Your task to perform on an android device: Go to Yahoo.com Image 0: 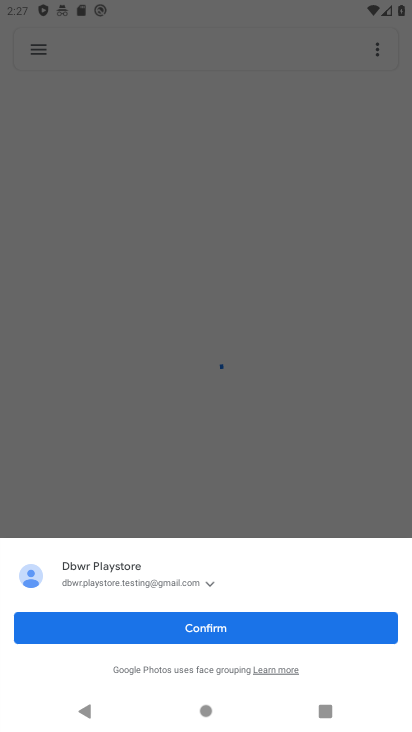
Step 0: press back button
Your task to perform on an android device: Go to Yahoo.com Image 1: 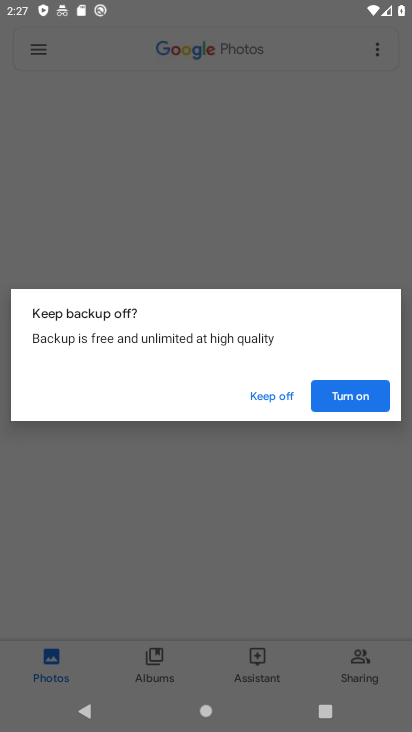
Step 1: click (218, 625)
Your task to perform on an android device: Go to Yahoo.com Image 2: 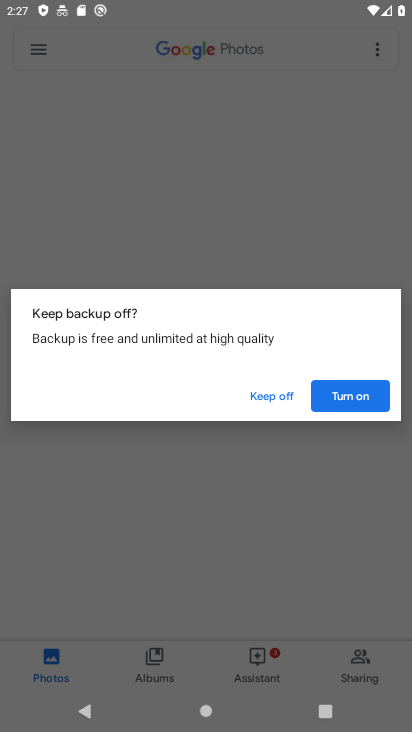
Step 2: click (290, 396)
Your task to perform on an android device: Go to Yahoo.com Image 3: 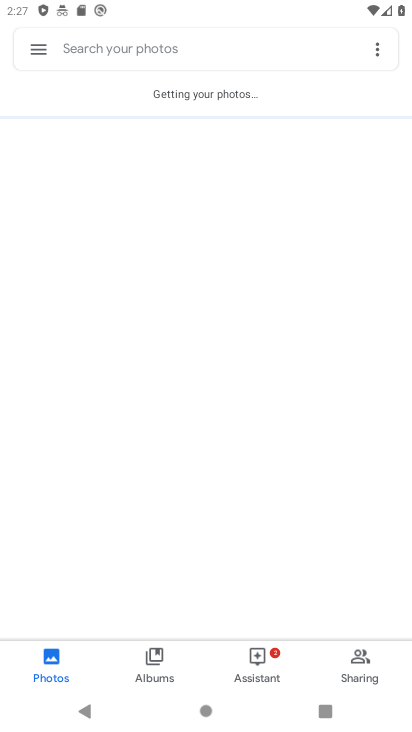
Step 3: press home button
Your task to perform on an android device: Go to Yahoo.com Image 4: 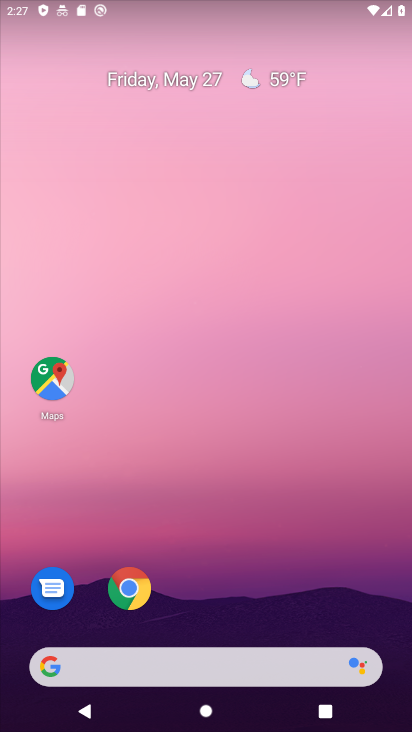
Step 4: drag from (238, 651) to (68, 13)
Your task to perform on an android device: Go to Yahoo.com Image 5: 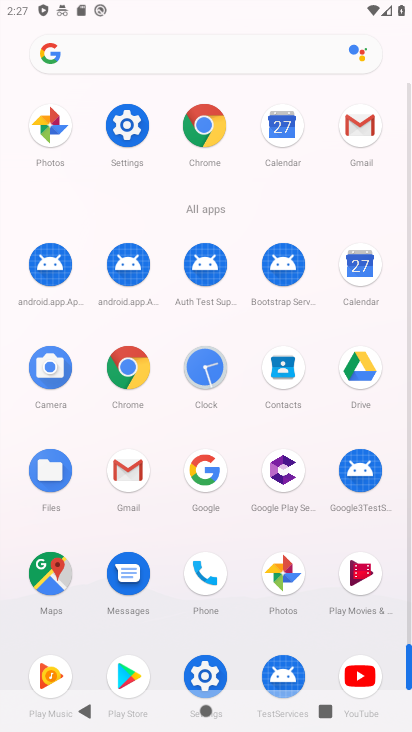
Step 5: click (200, 125)
Your task to perform on an android device: Go to Yahoo.com Image 6: 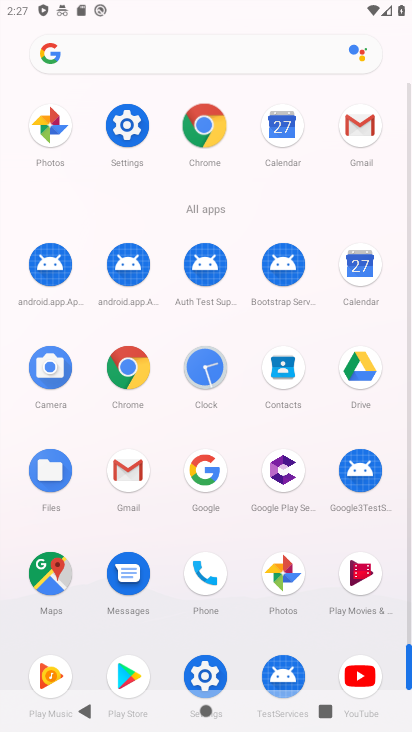
Step 6: click (200, 125)
Your task to perform on an android device: Go to Yahoo.com Image 7: 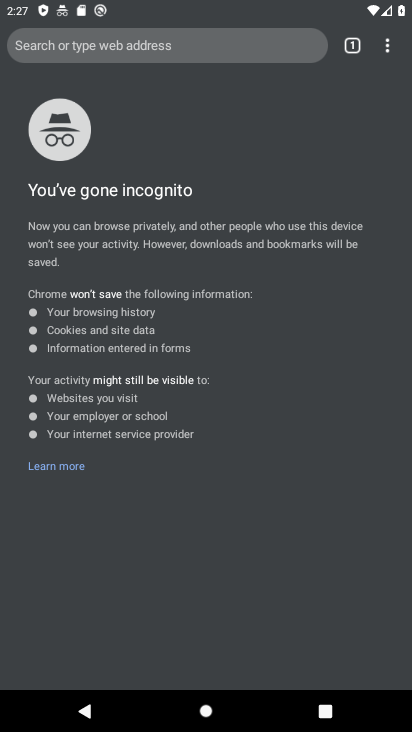
Step 7: click (201, 124)
Your task to perform on an android device: Go to Yahoo.com Image 8: 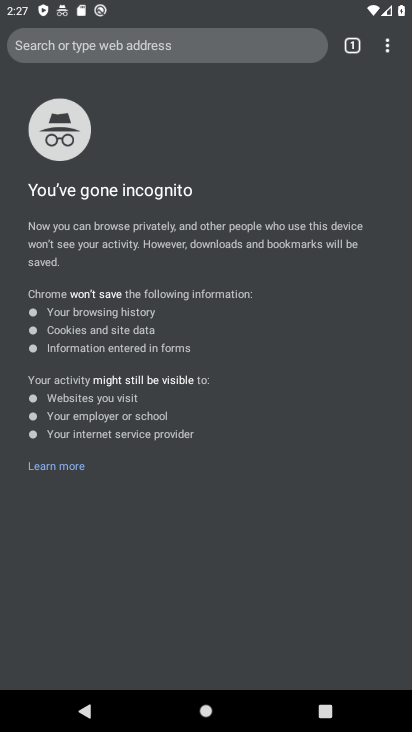
Step 8: click (201, 124)
Your task to perform on an android device: Go to Yahoo.com Image 9: 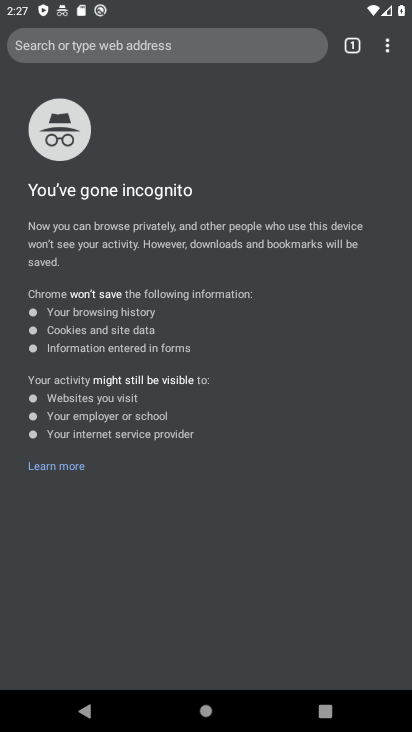
Step 9: drag from (386, 48) to (222, 337)
Your task to perform on an android device: Go to Yahoo.com Image 10: 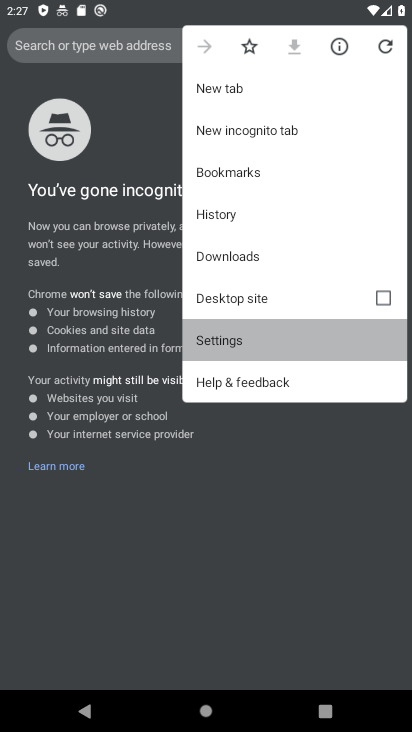
Step 10: click (222, 337)
Your task to perform on an android device: Go to Yahoo.com Image 11: 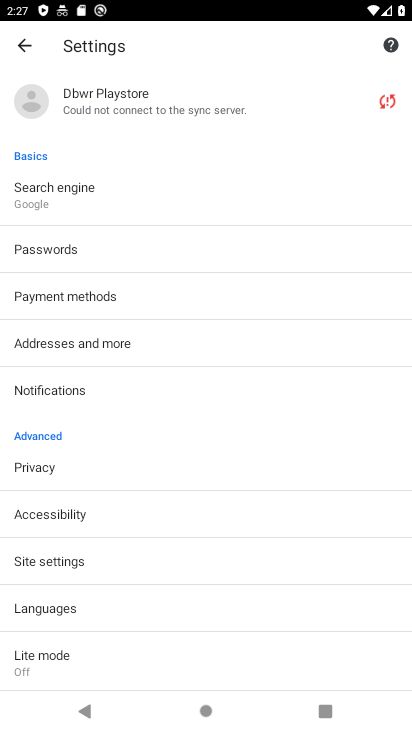
Step 11: click (25, 50)
Your task to perform on an android device: Go to Yahoo.com Image 12: 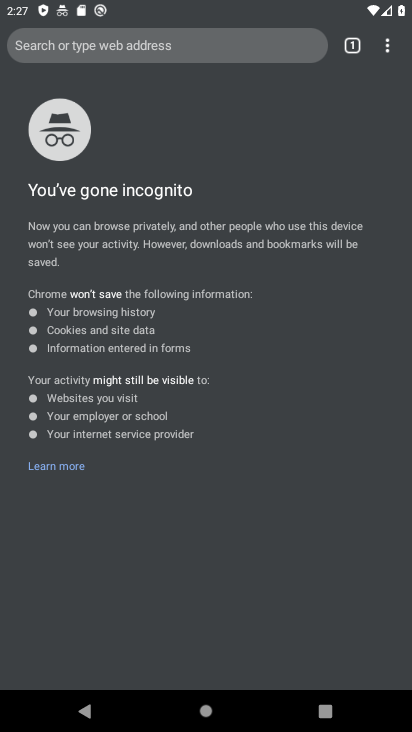
Step 12: click (390, 50)
Your task to perform on an android device: Go to Yahoo.com Image 13: 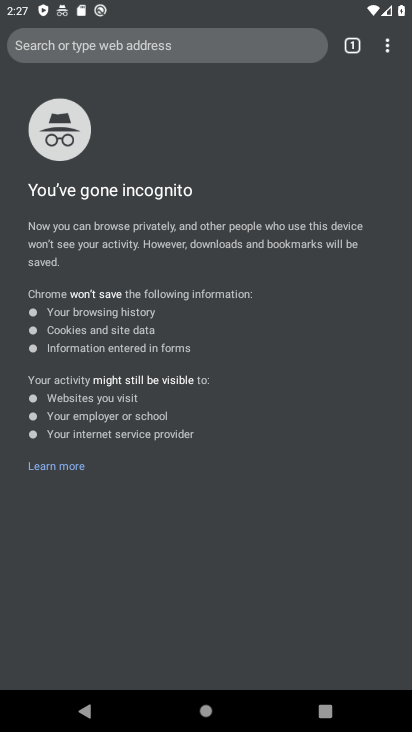
Step 13: click (385, 44)
Your task to perform on an android device: Go to Yahoo.com Image 14: 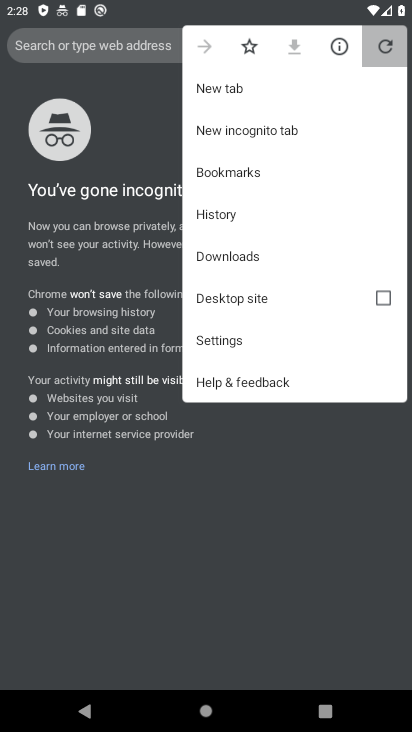
Step 14: drag from (342, 61) to (202, 90)
Your task to perform on an android device: Go to Yahoo.com Image 15: 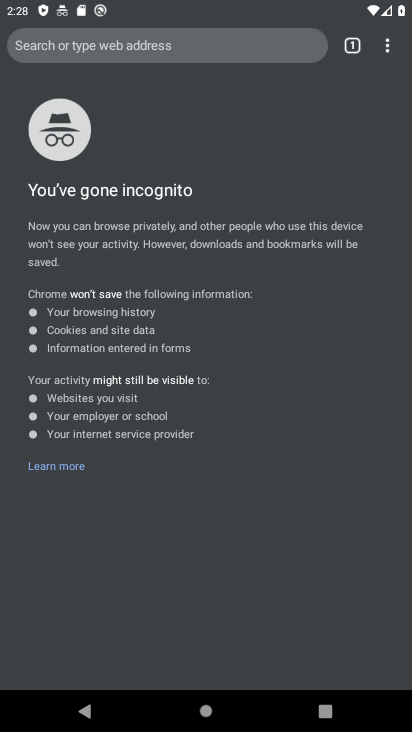
Step 15: click (386, 52)
Your task to perform on an android device: Go to Yahoo.com Image 16: 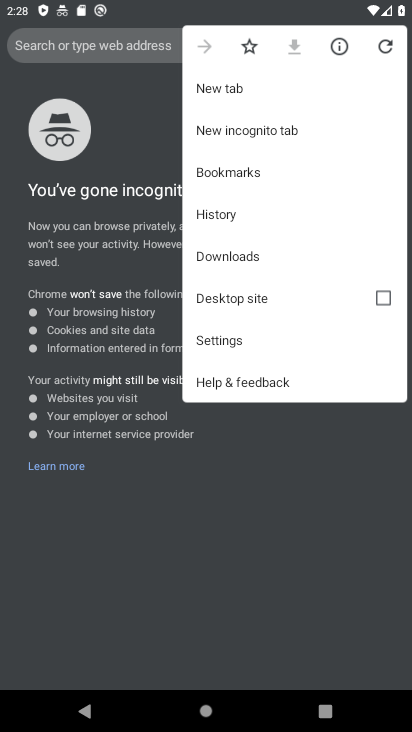
Step 16: click (232, 89)
Your task to perform on an android device: Go to Yahoo.com Image 17: 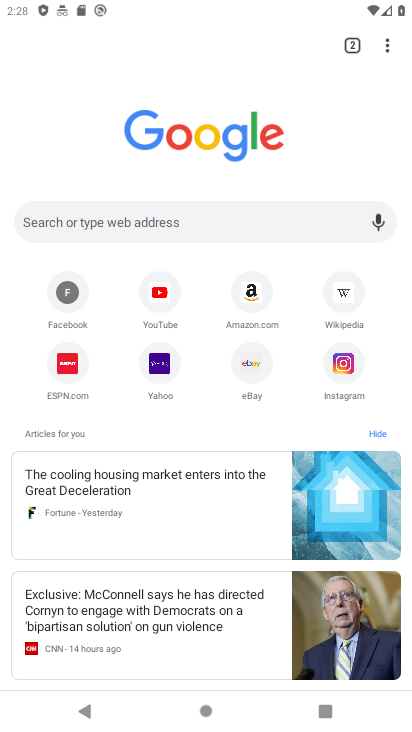
Step 17: click (153, 359)
Your task to perform on an android device: Go to Yahoo.com Image 18: 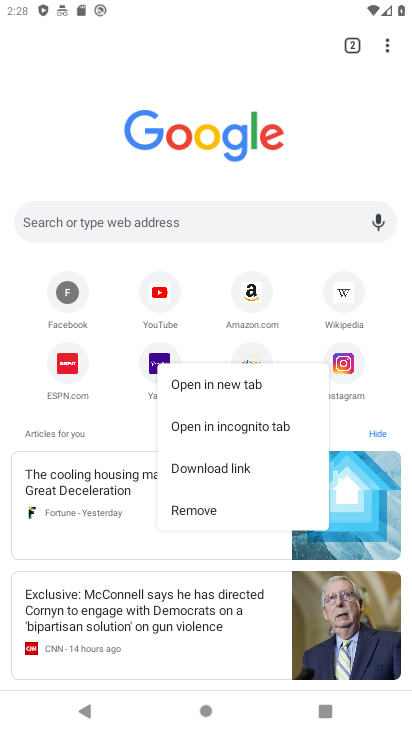
Step 18: click (158, 354)
Your task to perform on an android device: Go to Yahoo.com Image 19: 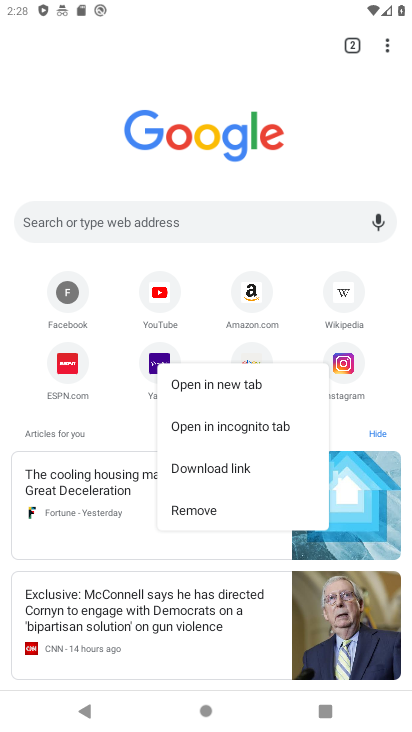
Step 19: click (157, 377)
Your task to perform on an android device: Go to Yahoo.com Image 20: 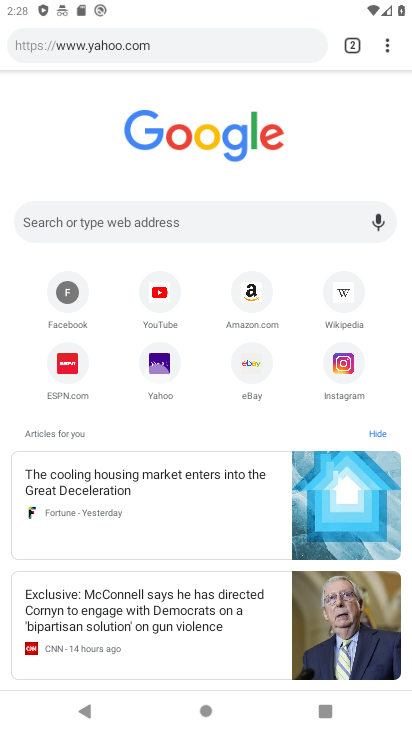
Step 20: click (159, 377)
Your task to perform on an android device: Go to Yahoo.com Image 21: 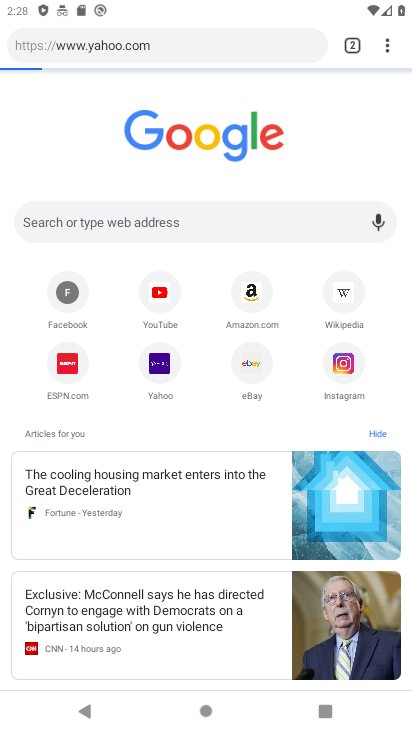
Step 21: click (160, 376)
Your task to perform on an android device: Go to Yahoo.com Image 22: 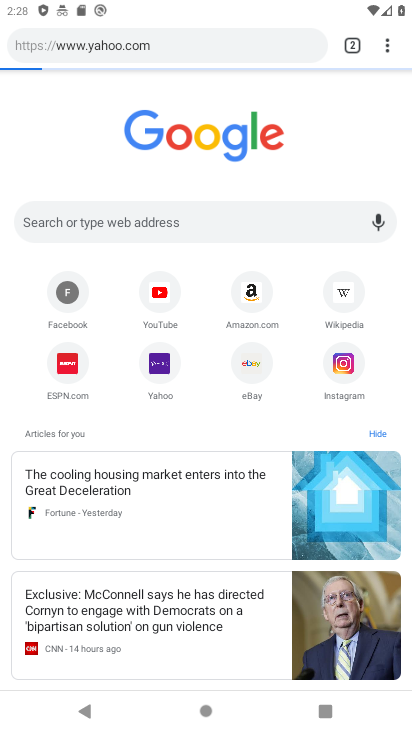
Step 22: click (161, 376)
Your task to perform on an android device: Go to Yahoo.com Image 23: 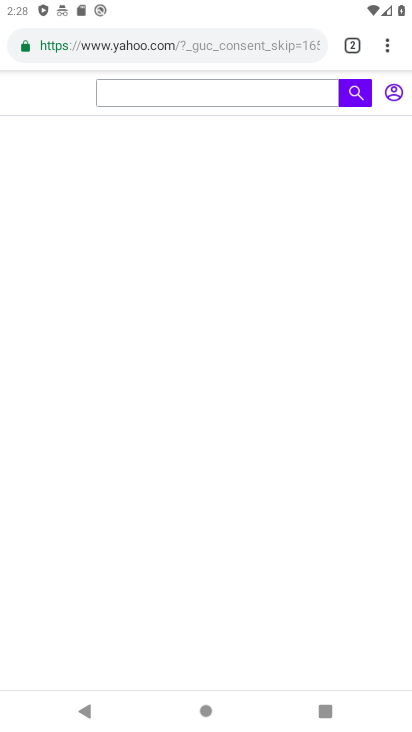
Step 23: task complete